Your task to perform on an android device: find photos in the google photos app Image 0: 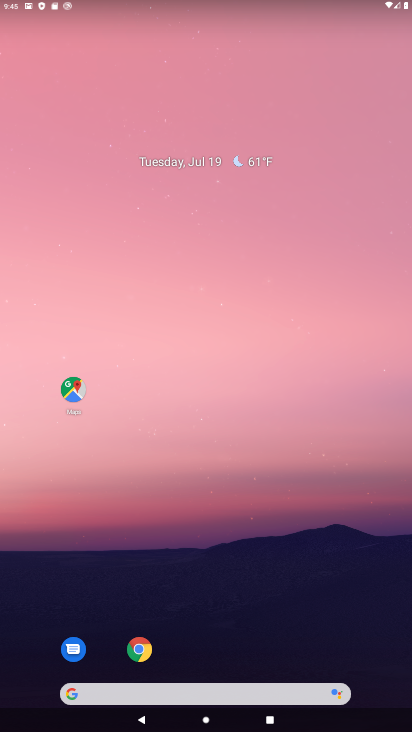
Step 0: drag from (372, 665) to (206, 61)
Your task to perform on an android device: find photos in the google photos app Image 1: 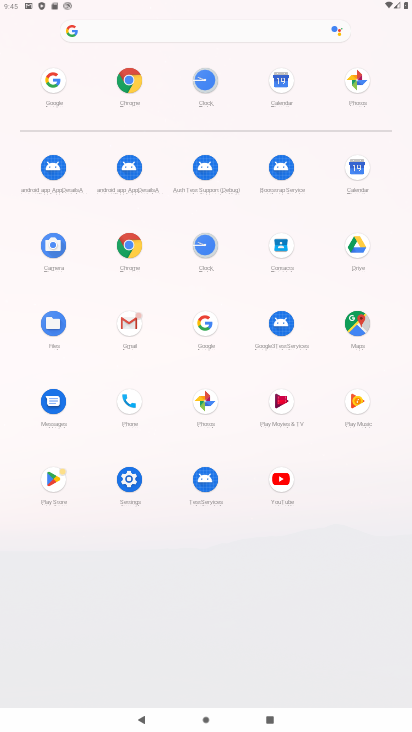
Step 1: click (205, 406)
Your task to perform on an android device: find photos in the google photos app Image 2: 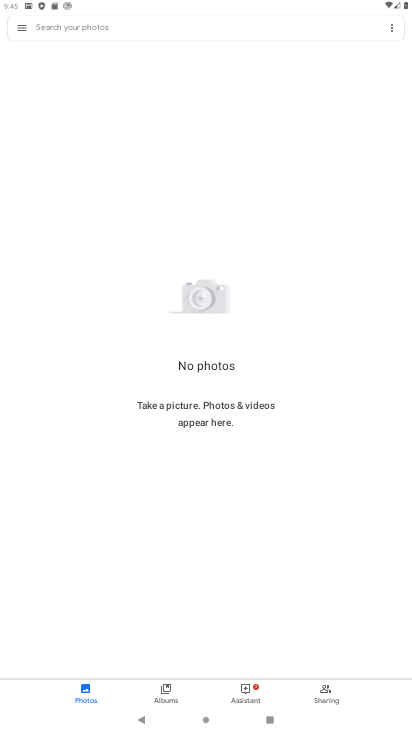
Step 2: task complete